Your task to perform on an android device: Open maps Image 0: 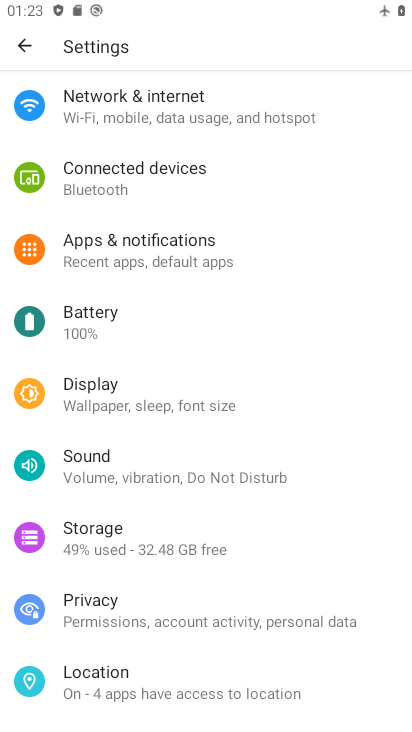
Step 0: press home button
Your task to perform on an android device: Open maps Image 1: 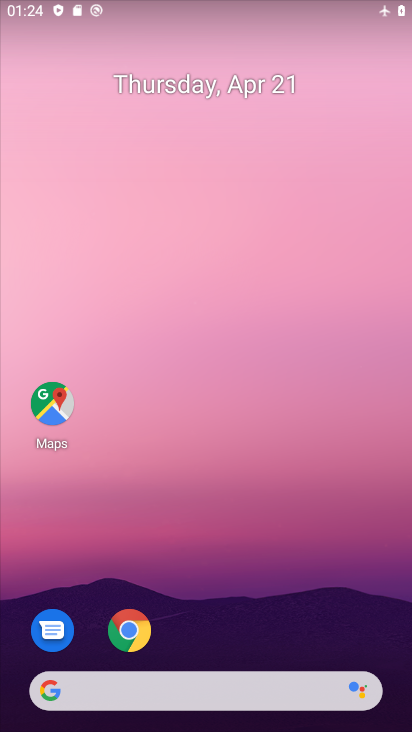
Step 1: click (58, 404)
Your task to perform on an android device: Open maps Image 2: 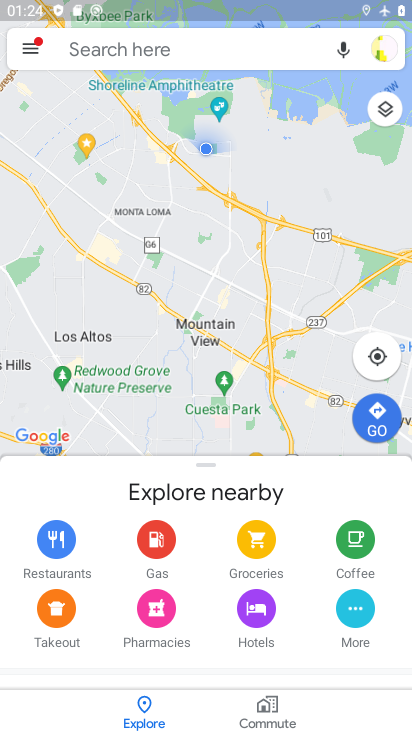
Step 2: task complete